Your task to perform on an android device: change the clock style Image 0: 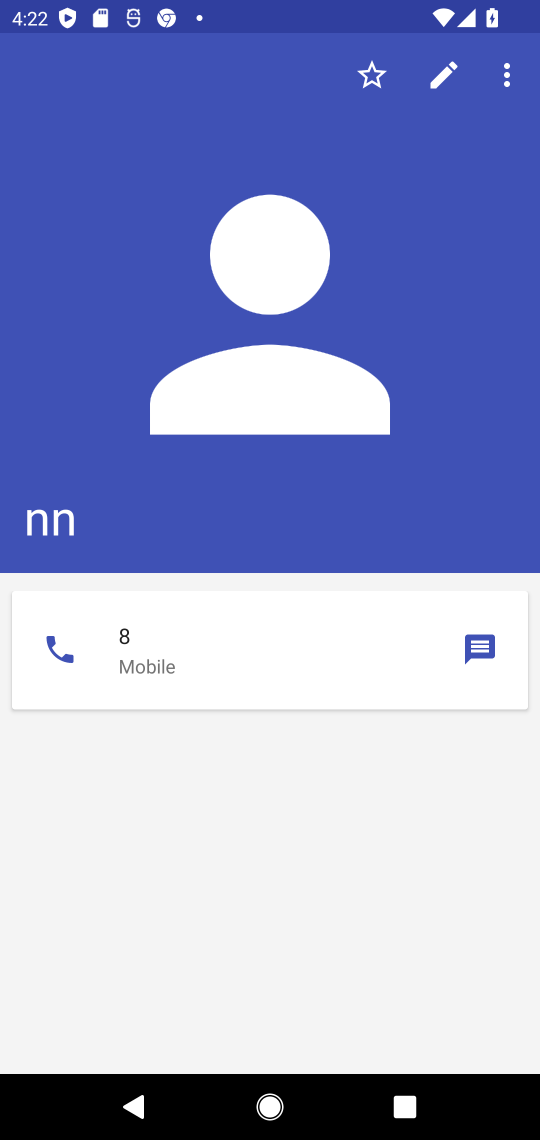
Step 0: press home button
Your task to perform on an android device: change the clock style Image 1: 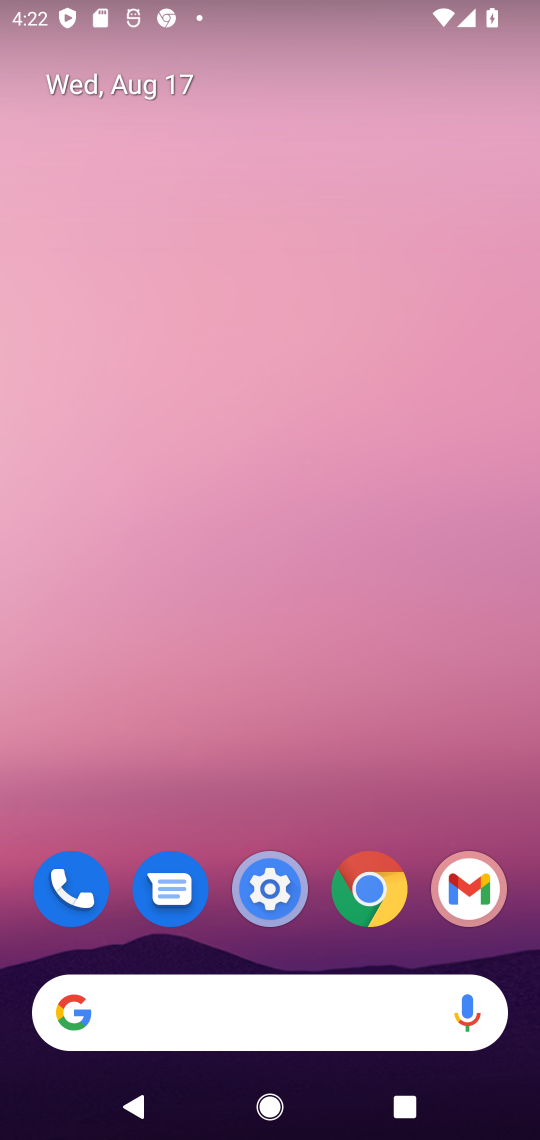
Step 1: drag from (288, 794) to (290, 41)
Your task to perform on an android device: change the clock style Image 2: 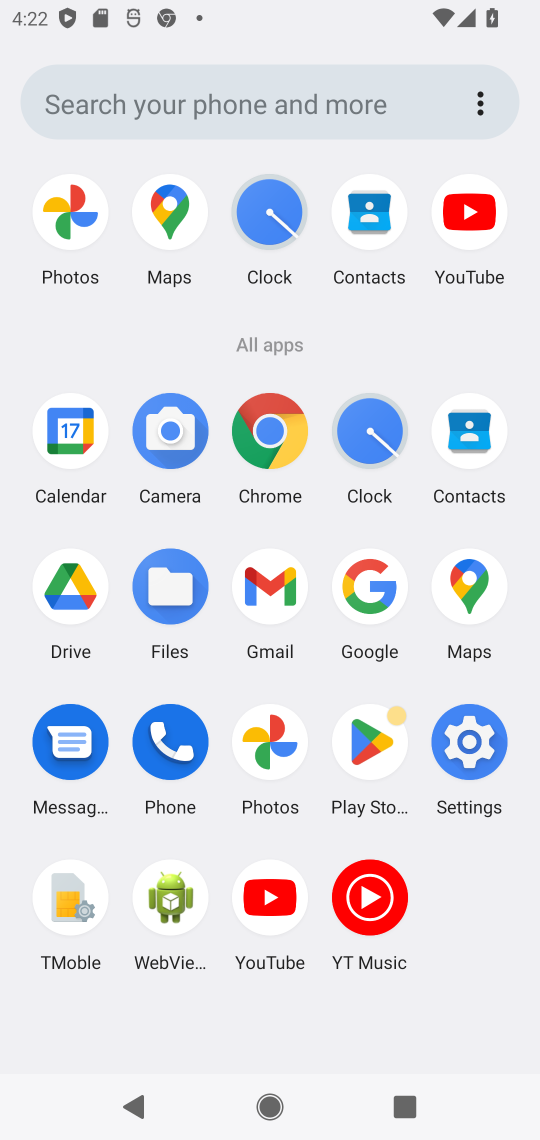
Step 2: click (272, 209)
Your task to perform on an android device: change the clock style Image 3: 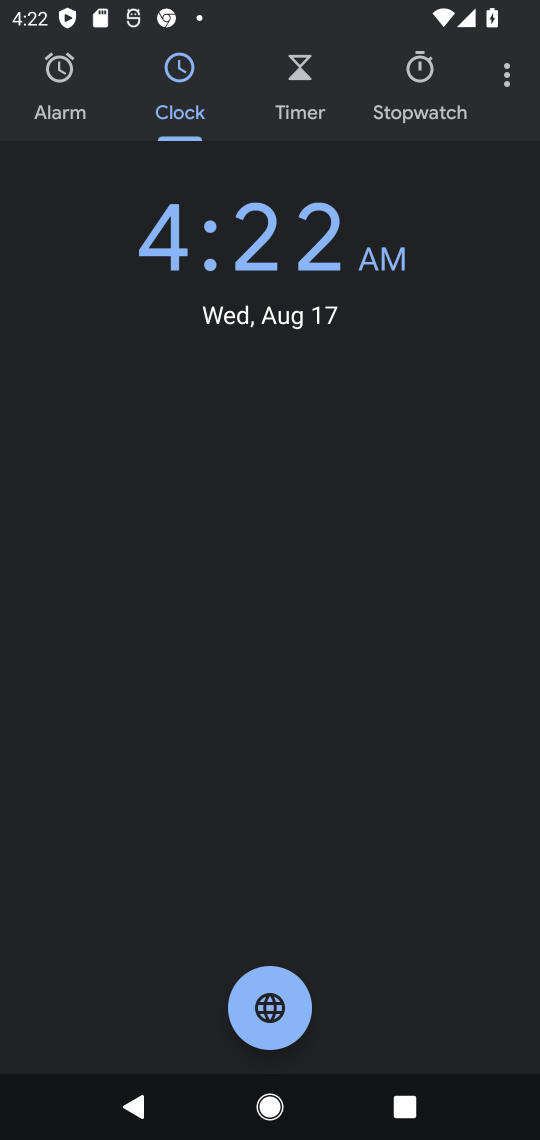
Step 3: click (504, 90)
Your task to perform on an android device: change the clock style Image 4: 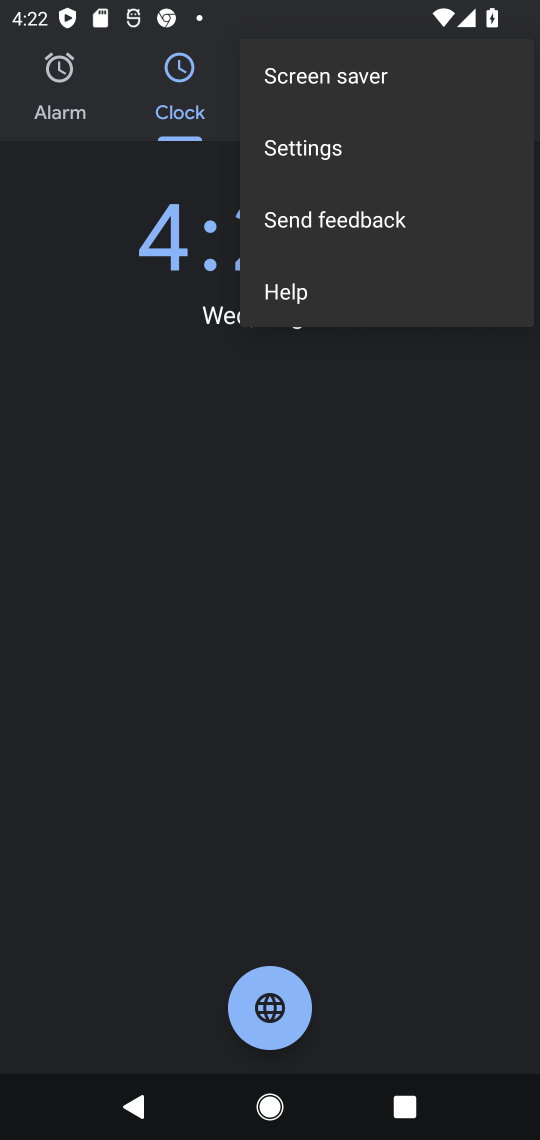
Step 4: click (276, 136)
Your task to perform on an android device: change the clock style Image 5: 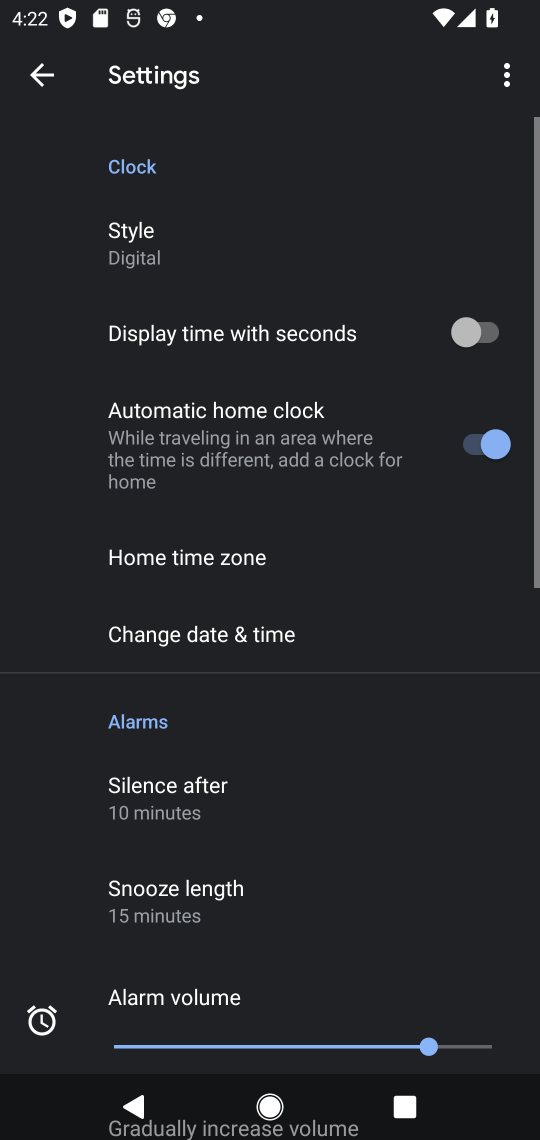
Step 5: click (138, 227)
Your task to perform on an android device: change the clock style Image 6: 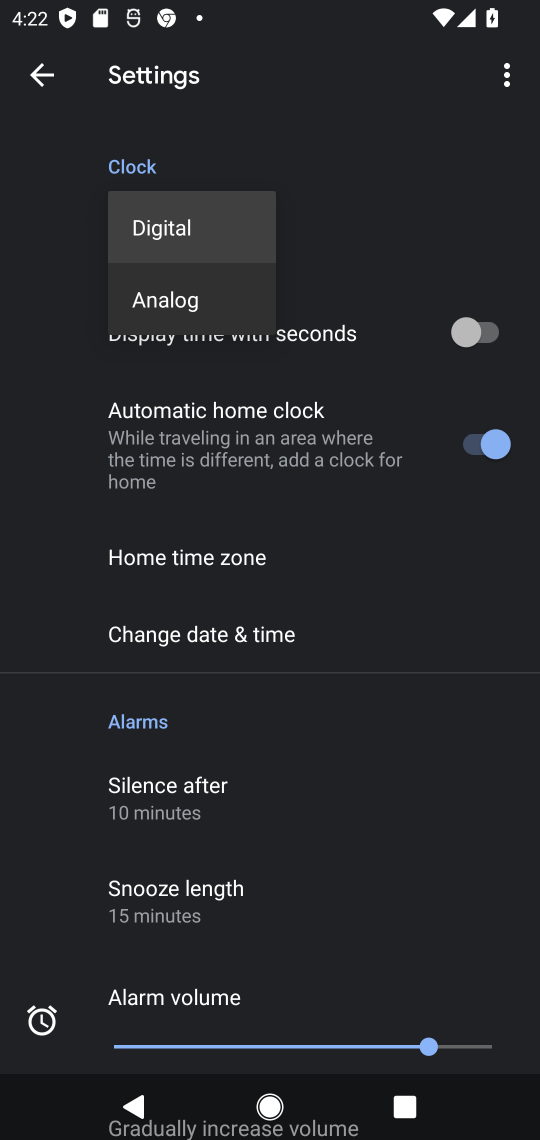
Step 6: click (152, 300)
Your task to perform on an android device: change the clock style Image 7: 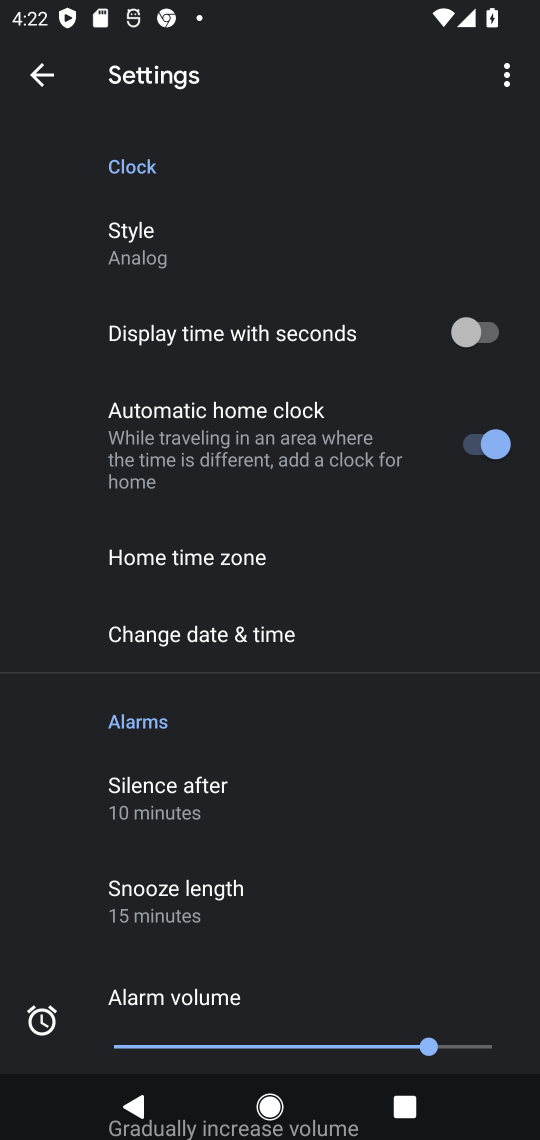
Step 7: task complete